Your task to perform on an android device: clear history in the chrome app Image 0: 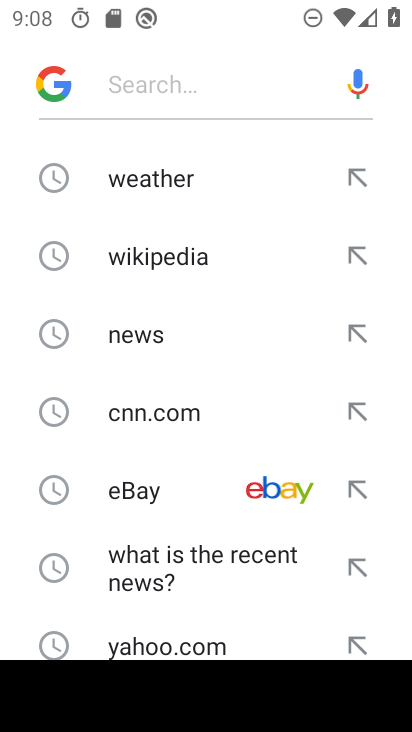
Step 0: press home button
Your task to perform on an android device: clear history in the chrome app Image 1: 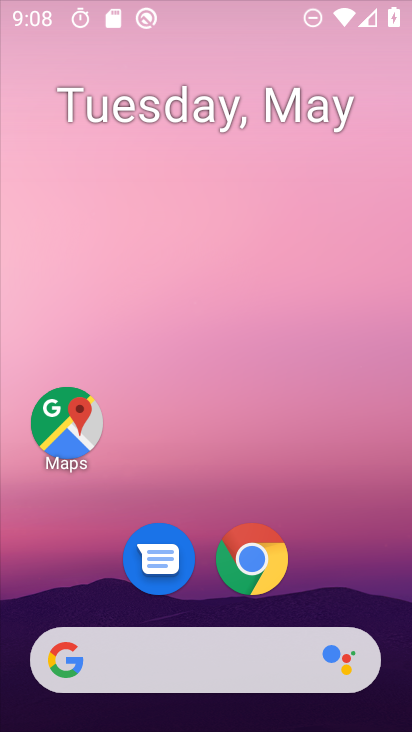
Step 1: drag from (376, 655) to (214, 27)
Your task to perform on an android device: clear history in the chrome app Image 2: 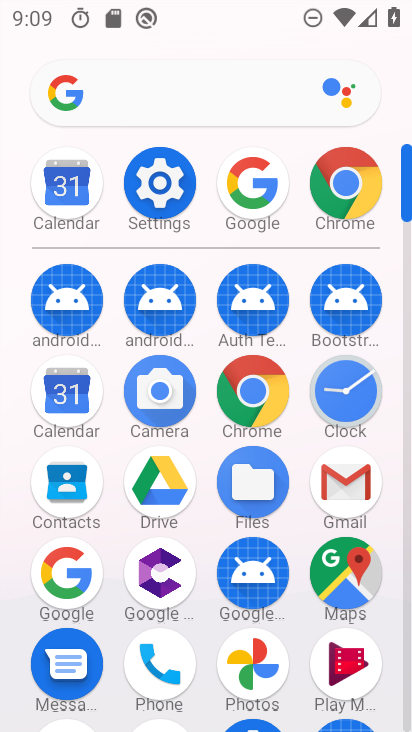
Step 2: click (340, 212)
Your task to perform on an android device: clear history in the chrome app Image 3: 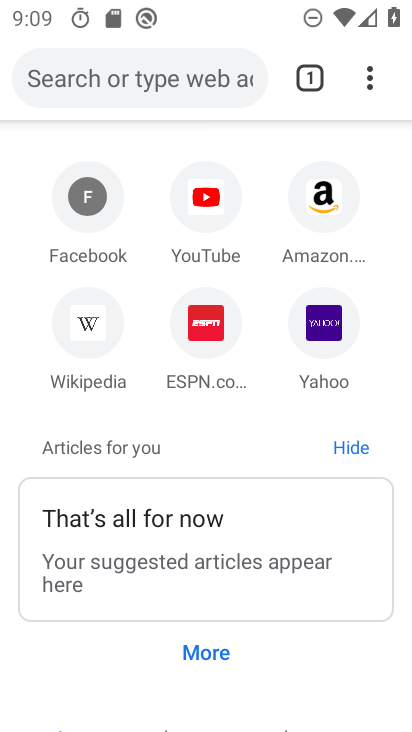
Step 3: click (369, 77)
Your task to perform on an android device: clear history in the chrome app Image 4: 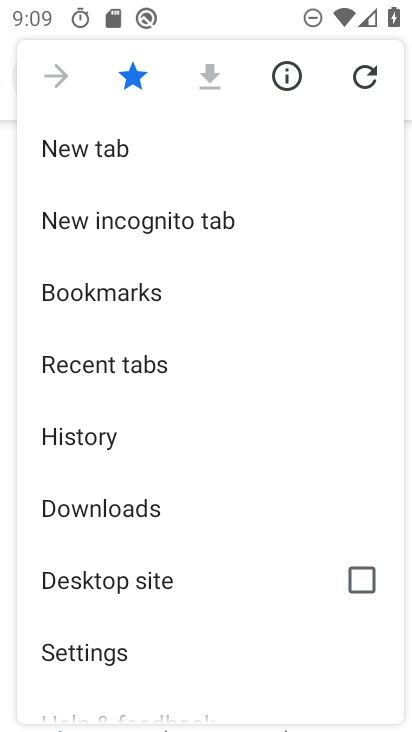
Step 4: click (124, 452)
Your task to perform on an android device: clear history in the chrome app Image 5: 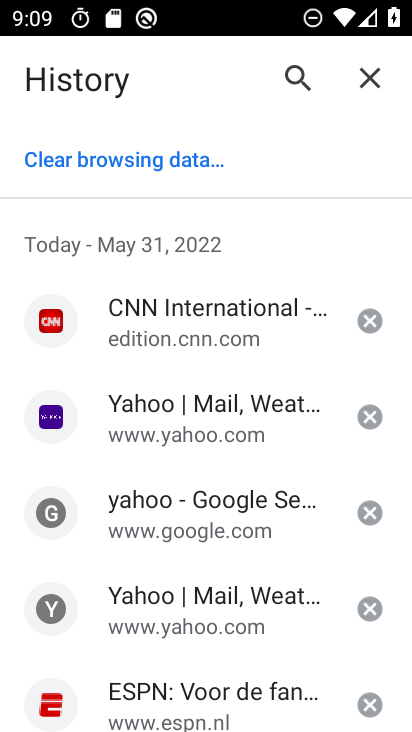
Step 5: click (90, 175)
Your task to perform on an android device: clear history in the chrome app Image 6: 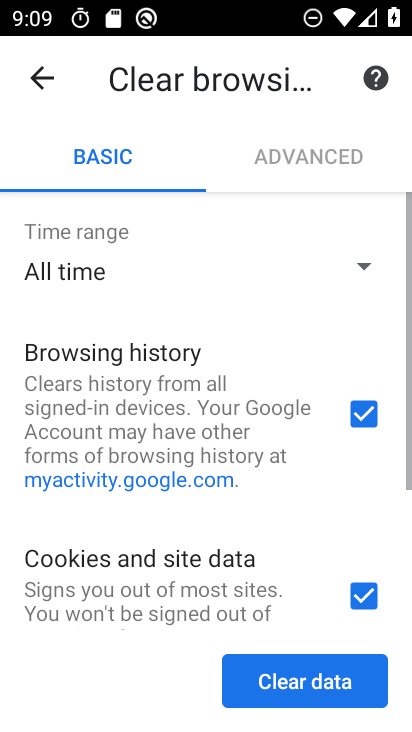
Step 6: click (297, 696)
Your task to perform on an android device: clear history in the chrome app Image 7: 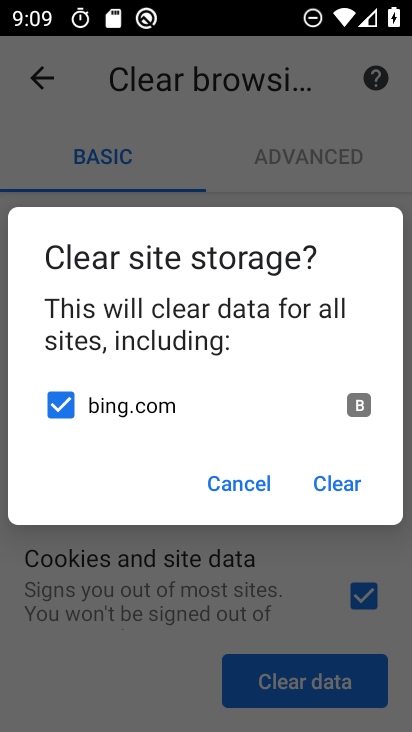
Step 7: click (352, 489)
Your task to perform on an android device: clear history in the chrome app Image 8: 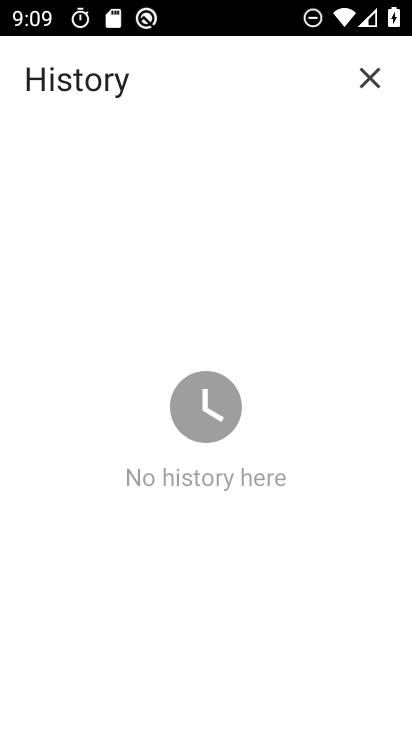
Step 8: task complete